Your task to perform on an android device: Go to ESPN.com Image 0: 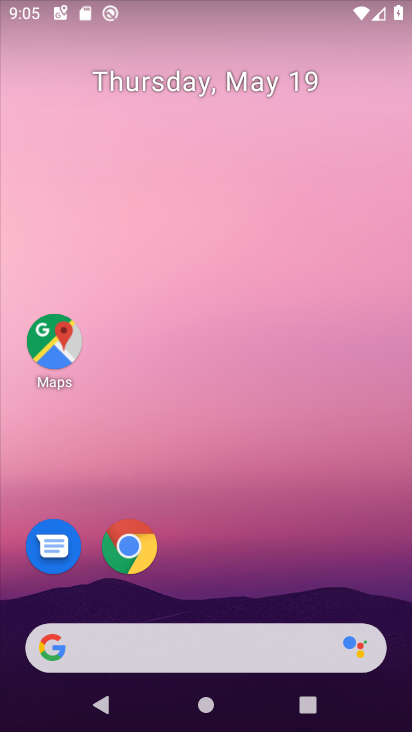
Step 0: drag from (262, 658) to (175, 56)
Your task to perform on an android device: Go to ESPN.com Image 1: 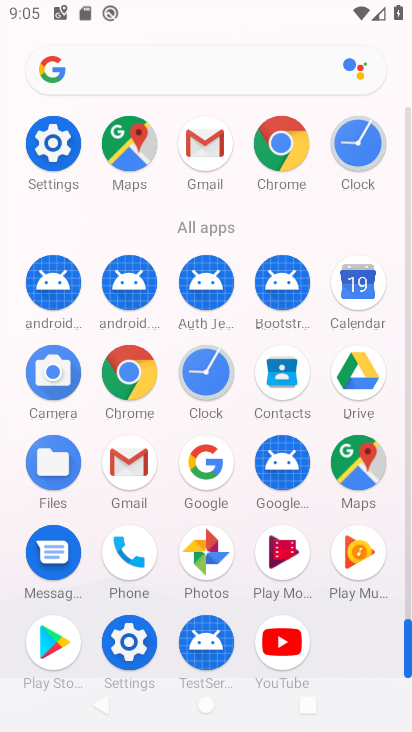
Step 1: click (131, 375)
Your task to perform on an android device: Go to ESPN.com Image 2: 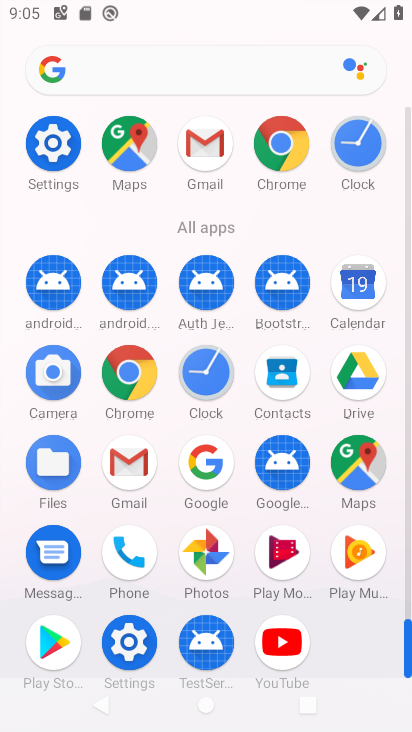
Step 2: click (131, 374)
Your task to perform on an android device: Go to ESPN.com Image 3: 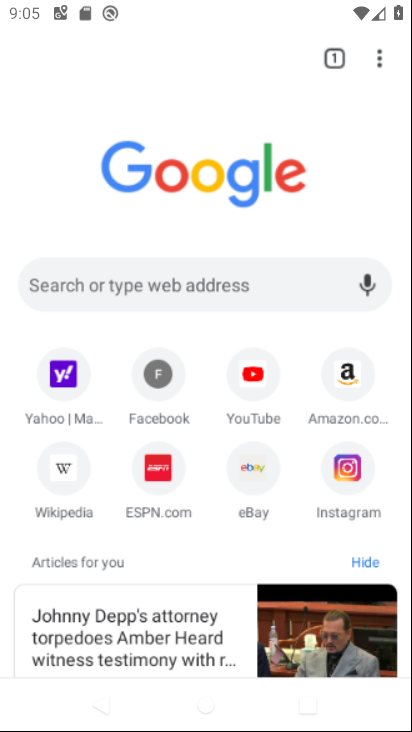
Step 3: click (130, 372)
Your task to perform on an android device: Go to ESPN.com Image 4: 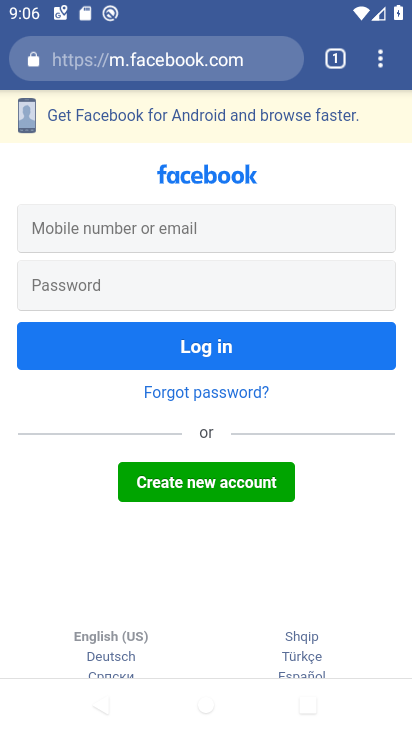
Step 4: press back button
Your task to perform on an android device: Go to ESPN.com Image 5: 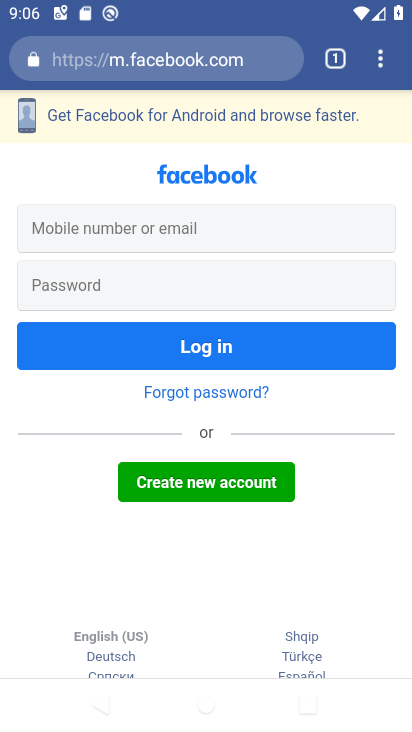
Step 5: press back button
Your task to perform on an android device: Go to ESPN.com Image 6: 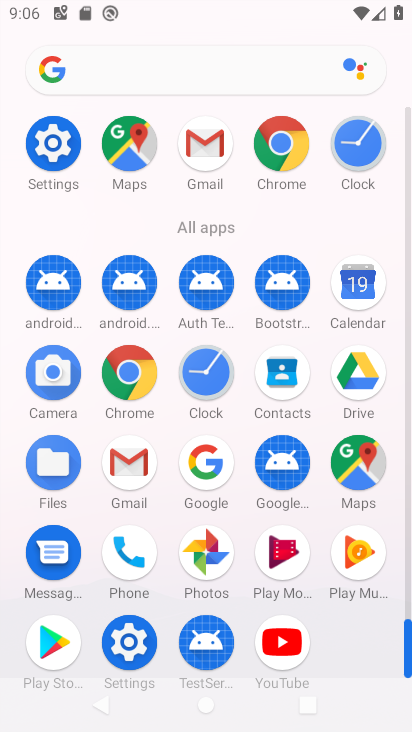
Step 6: click (283, 148)
Your task to perform on an android device: Go to ESPN.com Image 7: 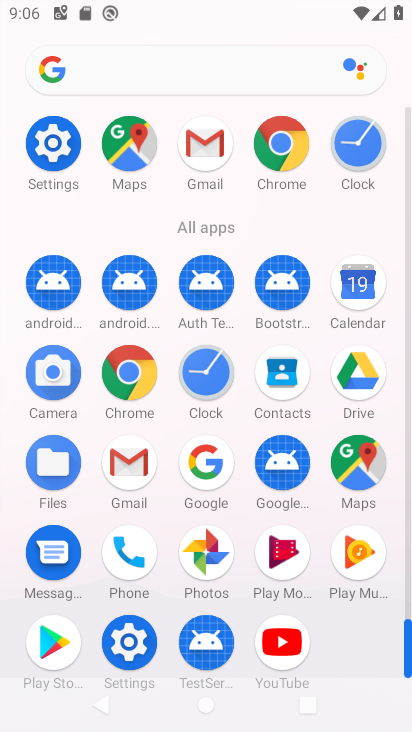
Step 7: click (284, 147)
Your task to perform on an android device: Go to ESPN.com Image 8: 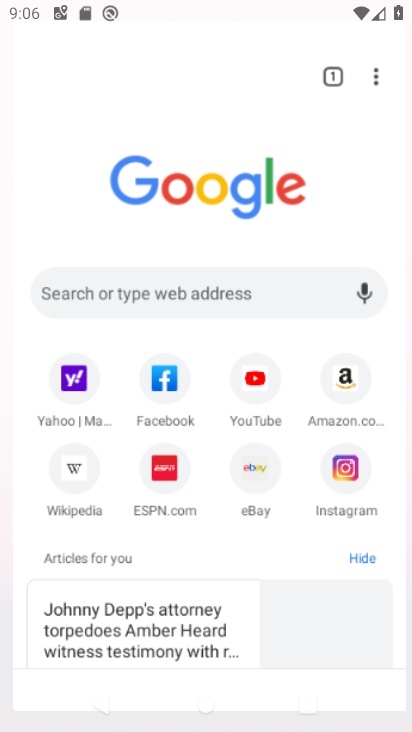
Step 8: click (286, 149)
Your task to perform on an android device: Go to ESPN.com Image 9: 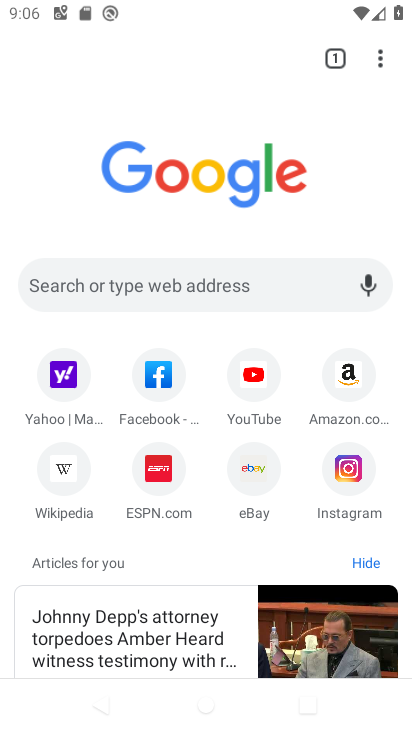
Step 9: click (157, 485)
Your task to perform on an android device: Go to ESPN.com Image 10: 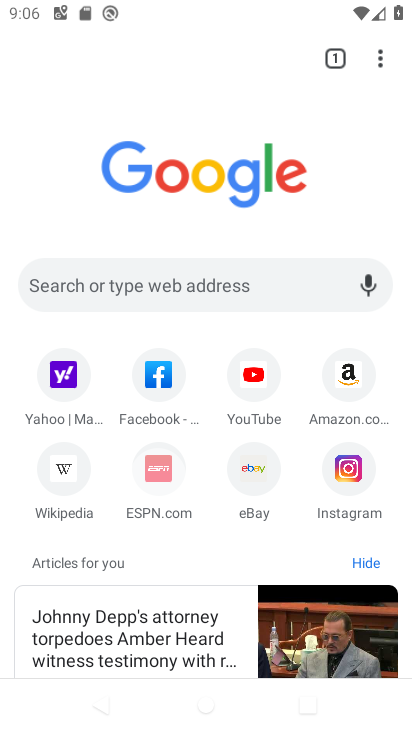
Step 10: click (158, 482)
Your task to perform on an android device: Go to ESPN.com Image 11: 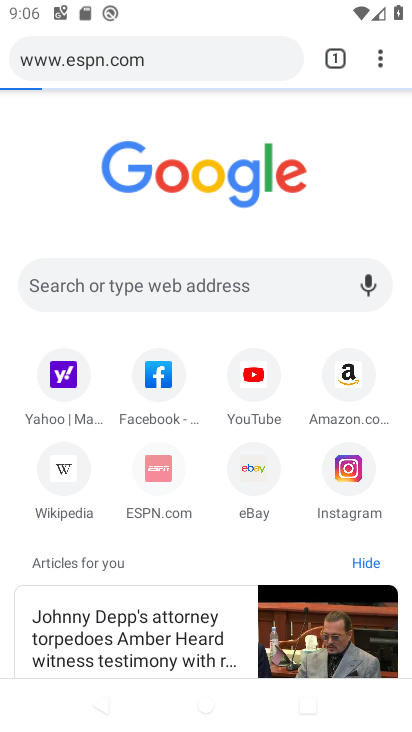
Step 11: click (159, 480)
Your task to perform on an android device: Go to ESPN.com Image 12: 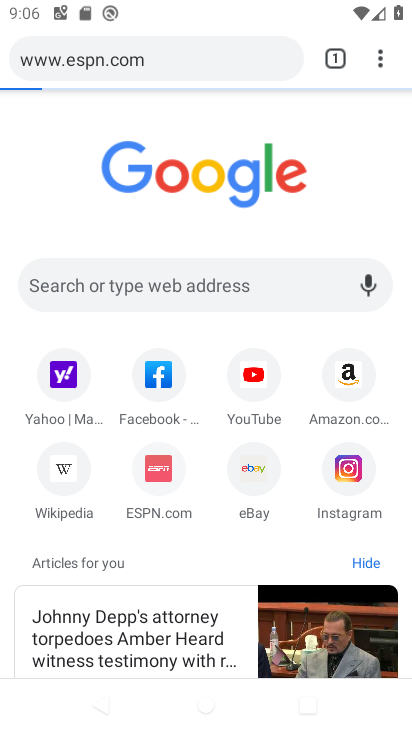
Step 12: click (157, 478)
Your task to perform on an android device: Go to ESPN.com Image 13: 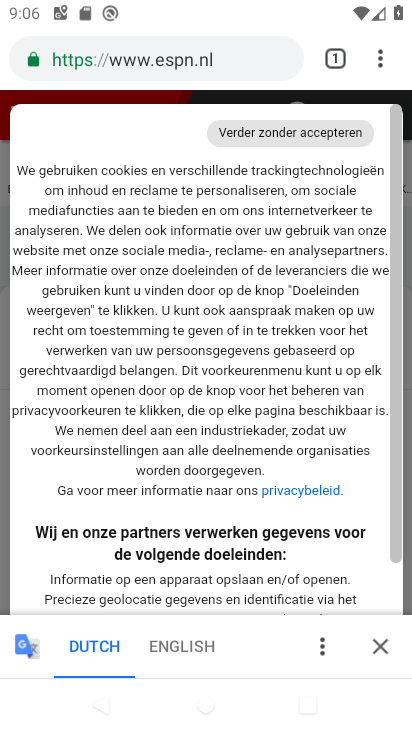
Step 13: task complete